Your task to perform on an android device: check storage Image 0: 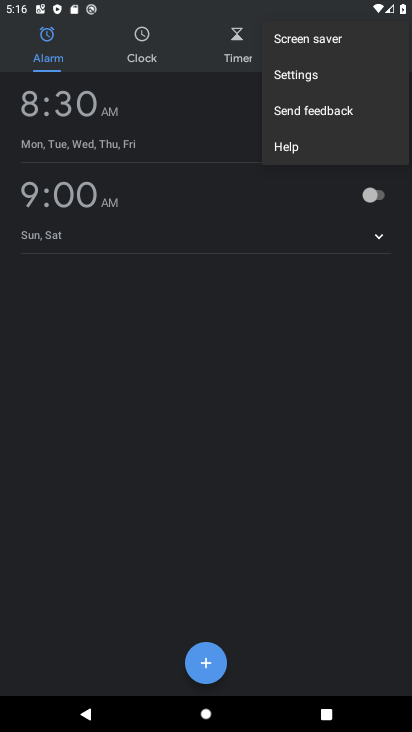
Step 0: click (313, 74)
Your task to perform on an android device: check storage Image 1: 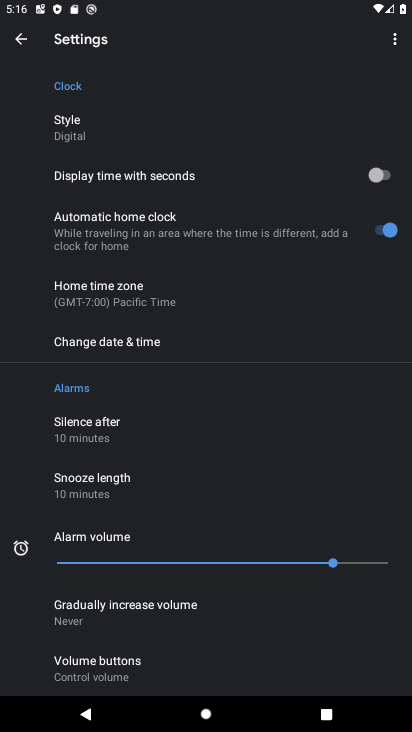
Step 1: task complete